Your task to perform on an android device: toggle javascript in the chrome app Image 0: 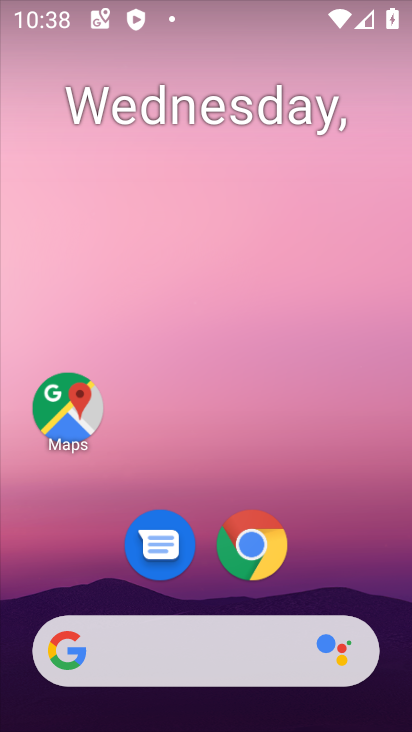
Step 0: click (242, 522)
Your task to perform on an android device: toggle javascript in the chrome app Image 1: 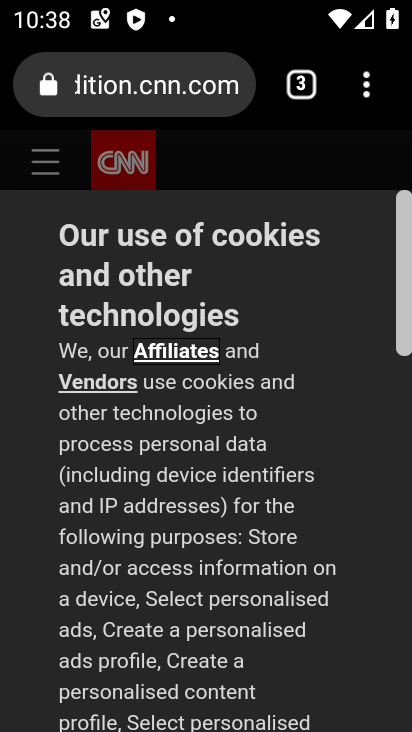
Step 1: click (358, 83)
Your task to perform on an android device: toggle javascript in the chrome app Image 2: 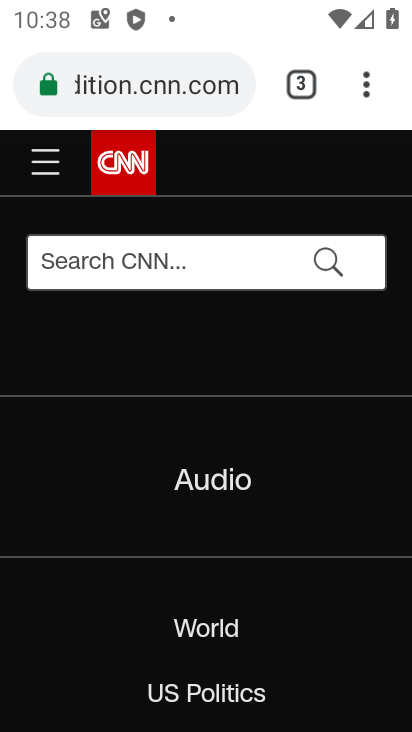
Step 2: drag from (355, 89) to (123, 610)
Your task to perform on an android device: toggle javascript in the chrome app Image 3: 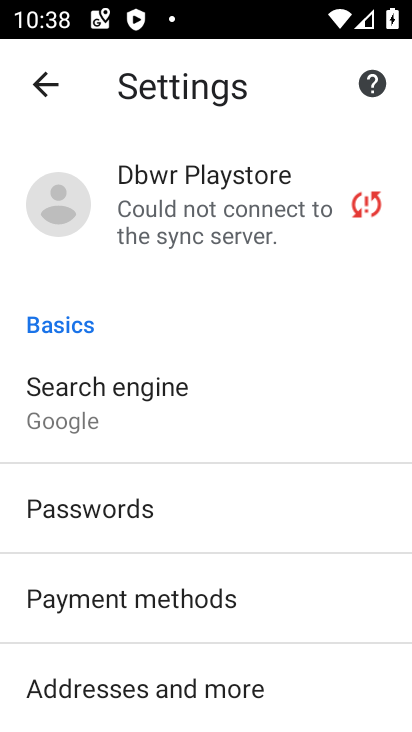
Step 3: drag from (213, 617) to (237, 398)
Your task to perform on an android device: toggle javascript in the chrome app Image 4: 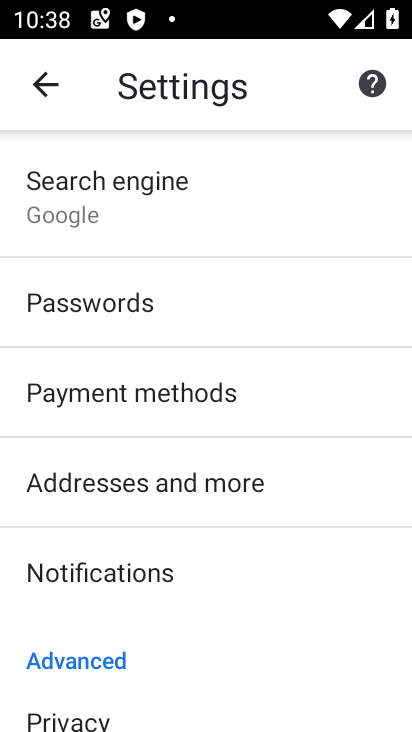
Step 4: drag from (237, 646) to (248, 434)
Your task to perform on an android device: toggle javascript in the chrome app Image 5: 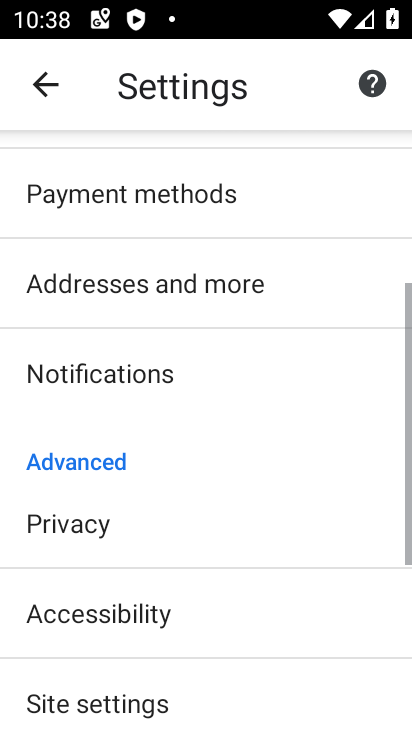
Step 5: drag from (197, 644) to (243, 416)
Your task to perform on an android device: toggle javascript in the chrome app Image 6: 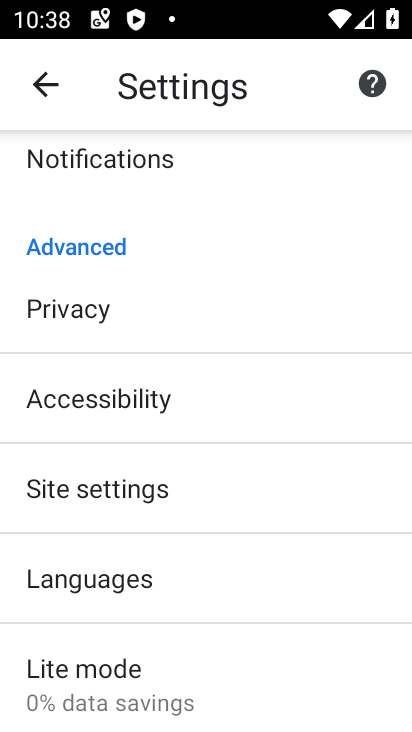
Step 6: drag from (186, 650) to (230, 464)
Your task to perform on an android device: toggle javascript in the chrome app Image 7: 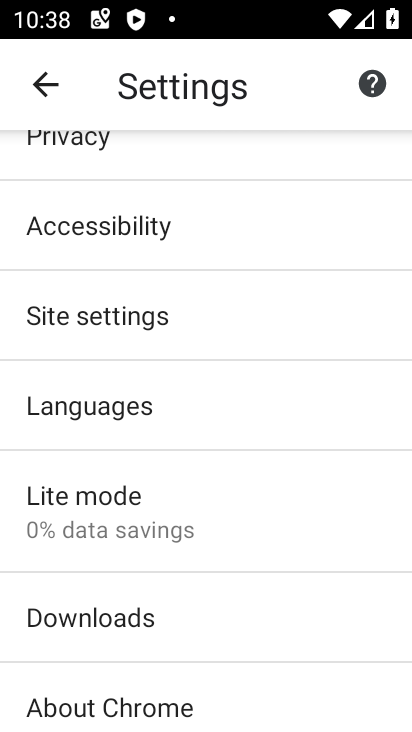
Step 7: click (199, 327)
Your task to perform on an android device: toggle javascript in the chrome app Image 8: 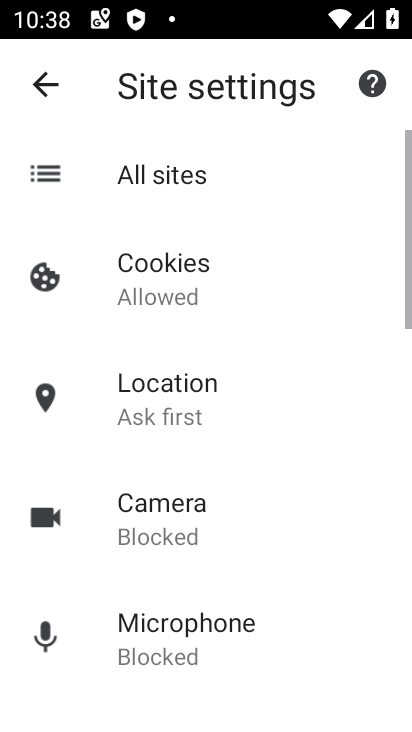
Step 8: drag from (217, 673) to (281, 347)
Your task to perform on an android device: toggle javascript in the chrome app Image 9: 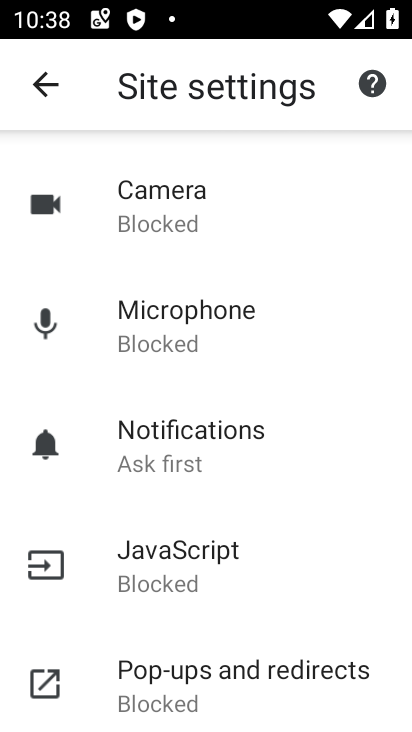
Step 9: click (224, 553)
Your task to perform on an android device: toggle javascript in the chrome app Image 10: 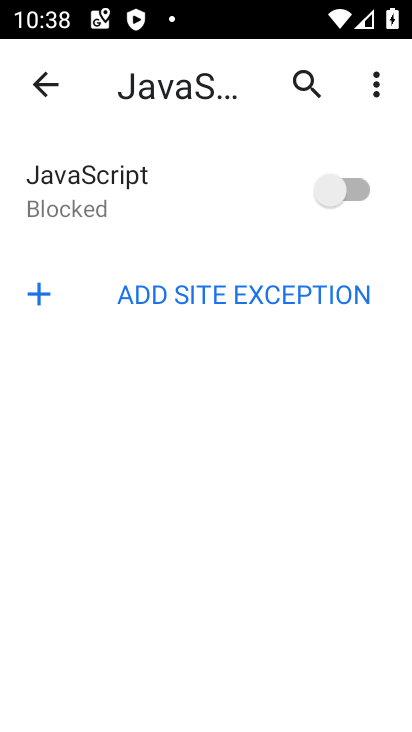
Step 10: click (369, 183)
Your task to perform on an android device: toggle javascript in the chrome app Image 11: 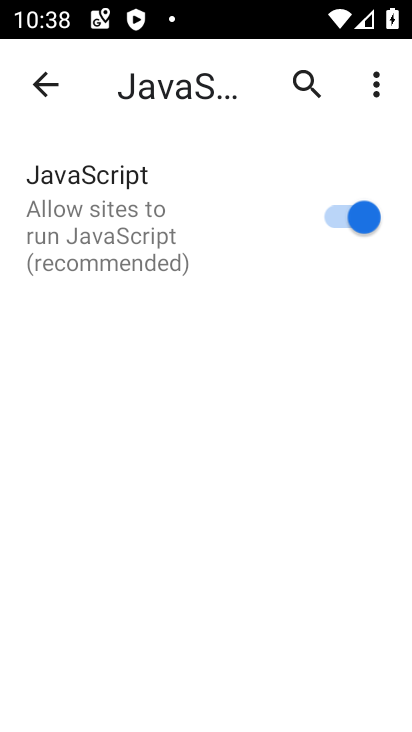
Step 11: task complete